Your task to perform on an android device: Go to eBay Image 0: 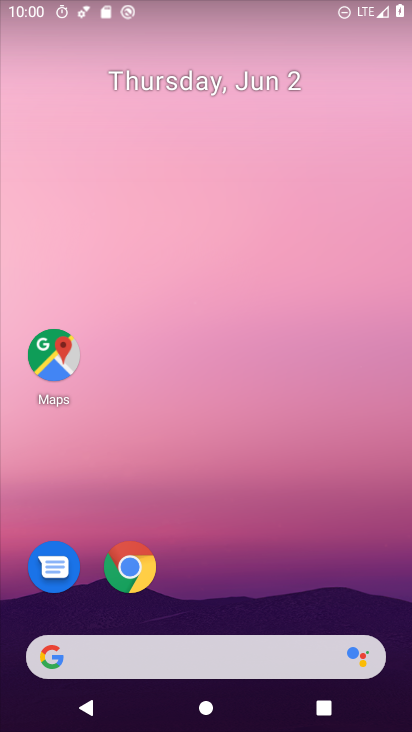
Step 0: drag from (341, 572) to (289, 127)
Your task to perform on an android device: Go to eBay Image 1: 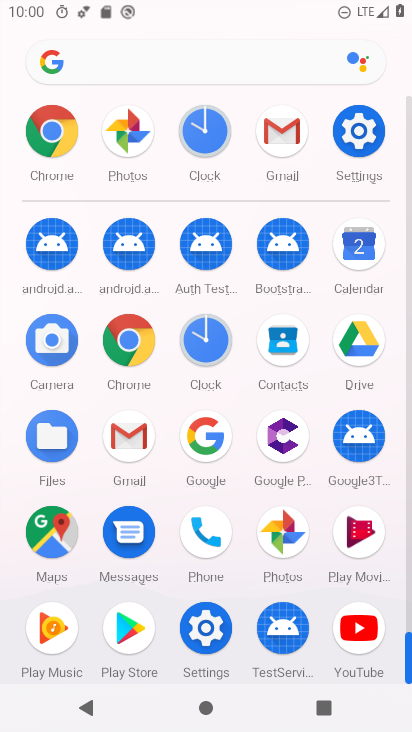
Step 1: click (121, 364)
Your task to perform on an android device: Go to eBay Image 2: 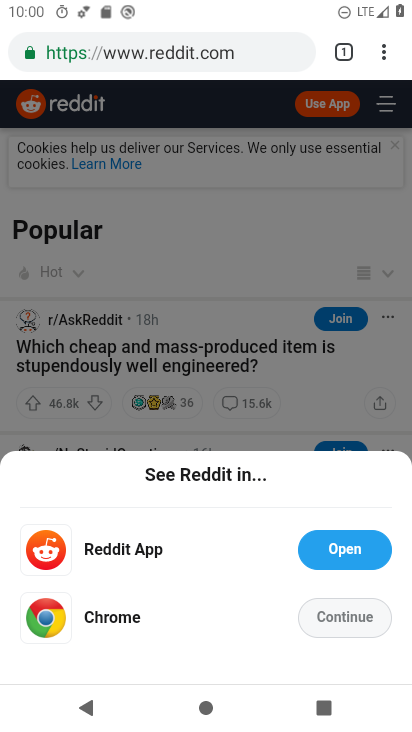
Step 2: click (183, 49)
Your task to perform on an android device: Go to eBay Image 3: 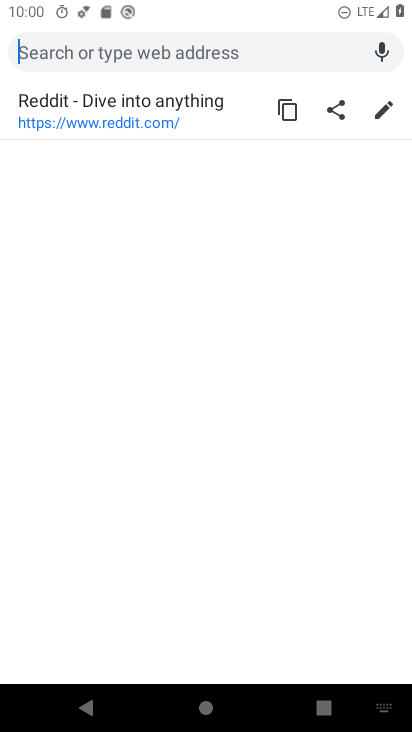
Step 3: type "ebay"
Your task to perform on an android device: Go to eBay Image 4: 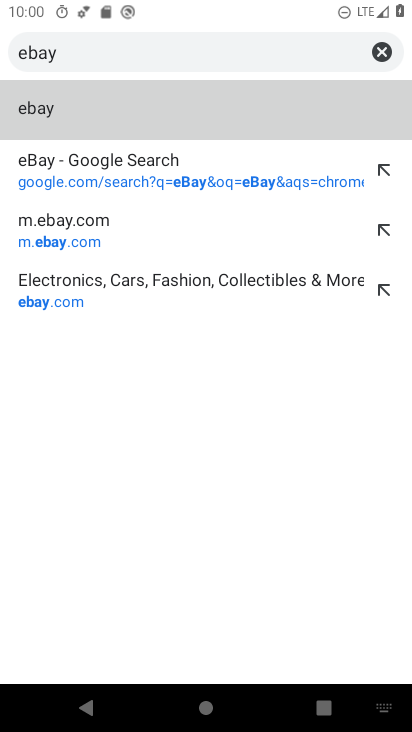
Step 4: click (46, 103)
Your task to perform on an android device: Go to eBay Image 5: 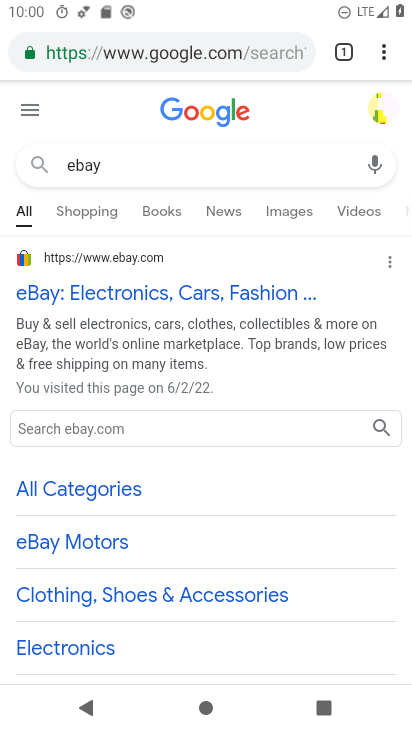
Step 5: click (113, 286)
Your task to perform on an android device: Go to eBay Image 6: 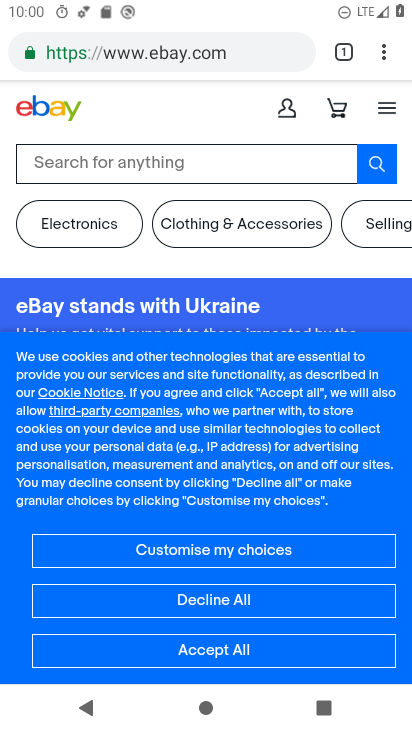
Step 6: task complete